Your task to perform on an android device: install app "NewsBreak: Local News & Alerts" Image 0: 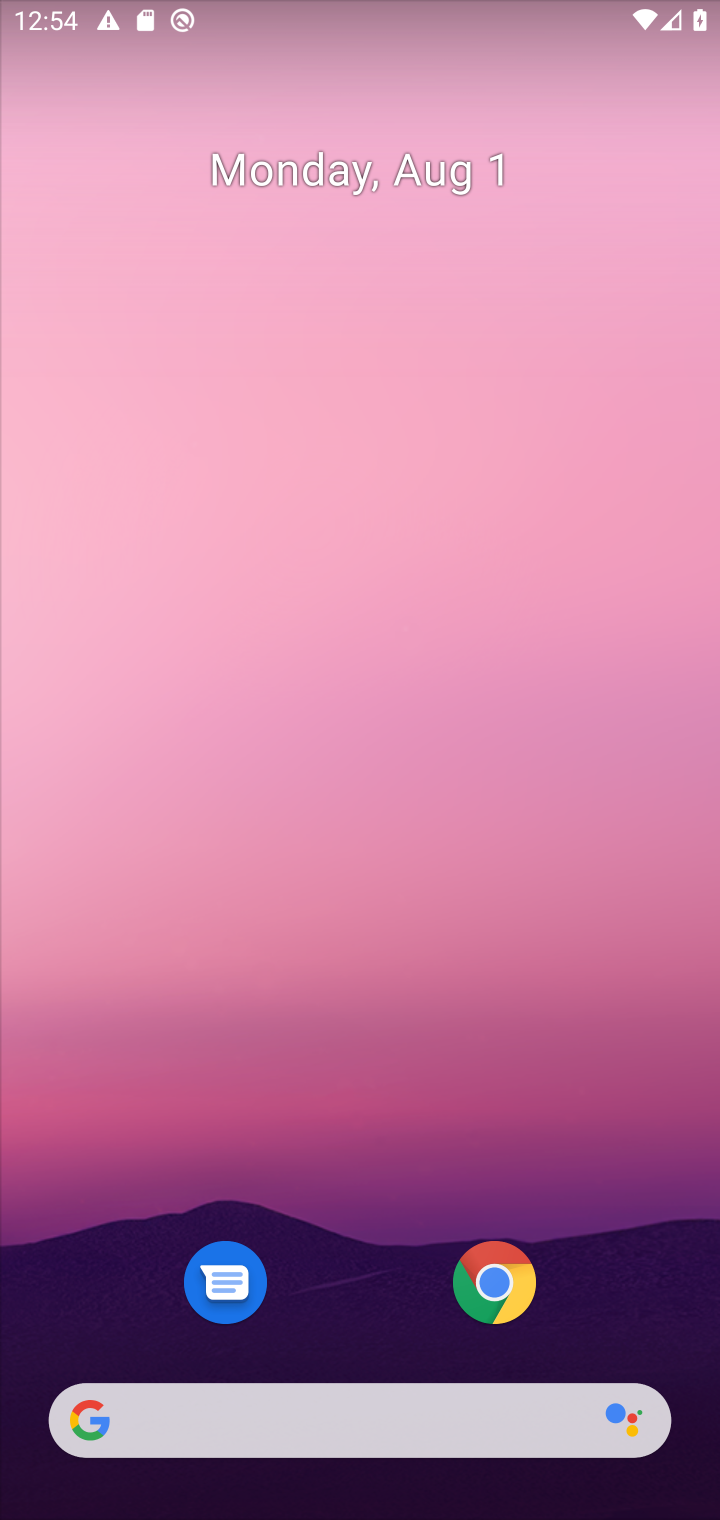
Step 0: drag from (326, 1341) to (146, 271)
Your task to perform on an android device: install app "NewsBreak: Local News & Alerts" Image 1: 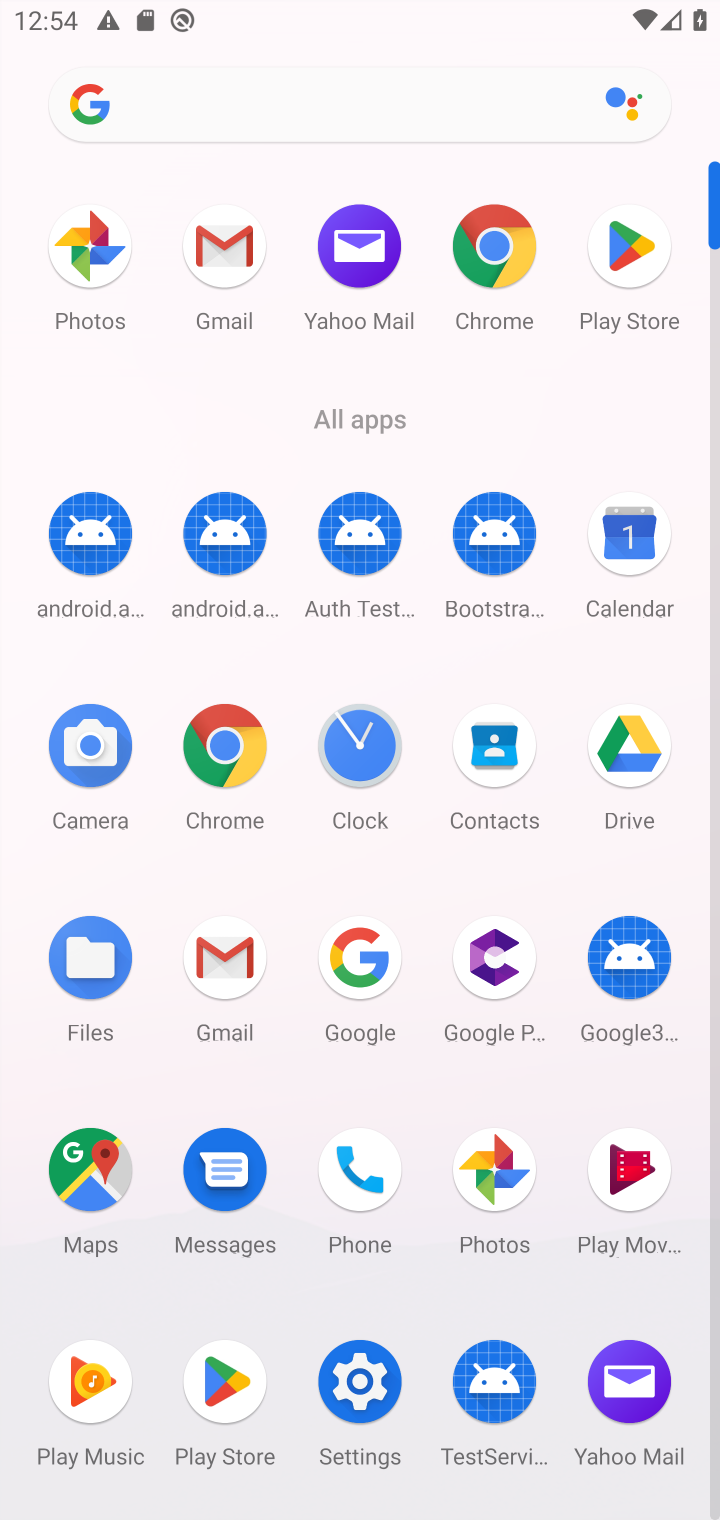
Step 1: click (242, 1375)
Your task to perform on an android device: install app "NewsBreak: Local News & Alerts" Image 2: 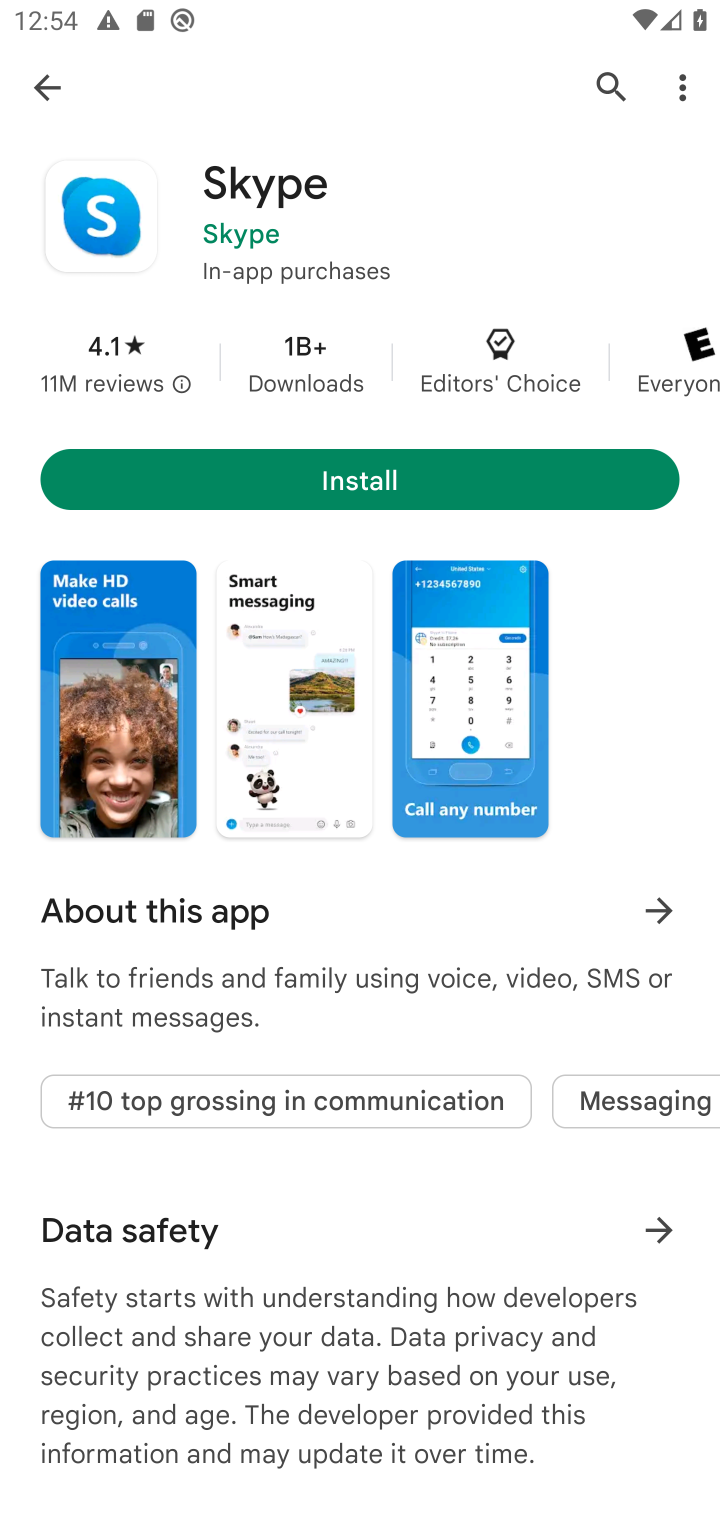
Step 2: click (37, 66)
Your task to perform on an android device: install app "NewsBreak: Local News & Alerts" Image 3: 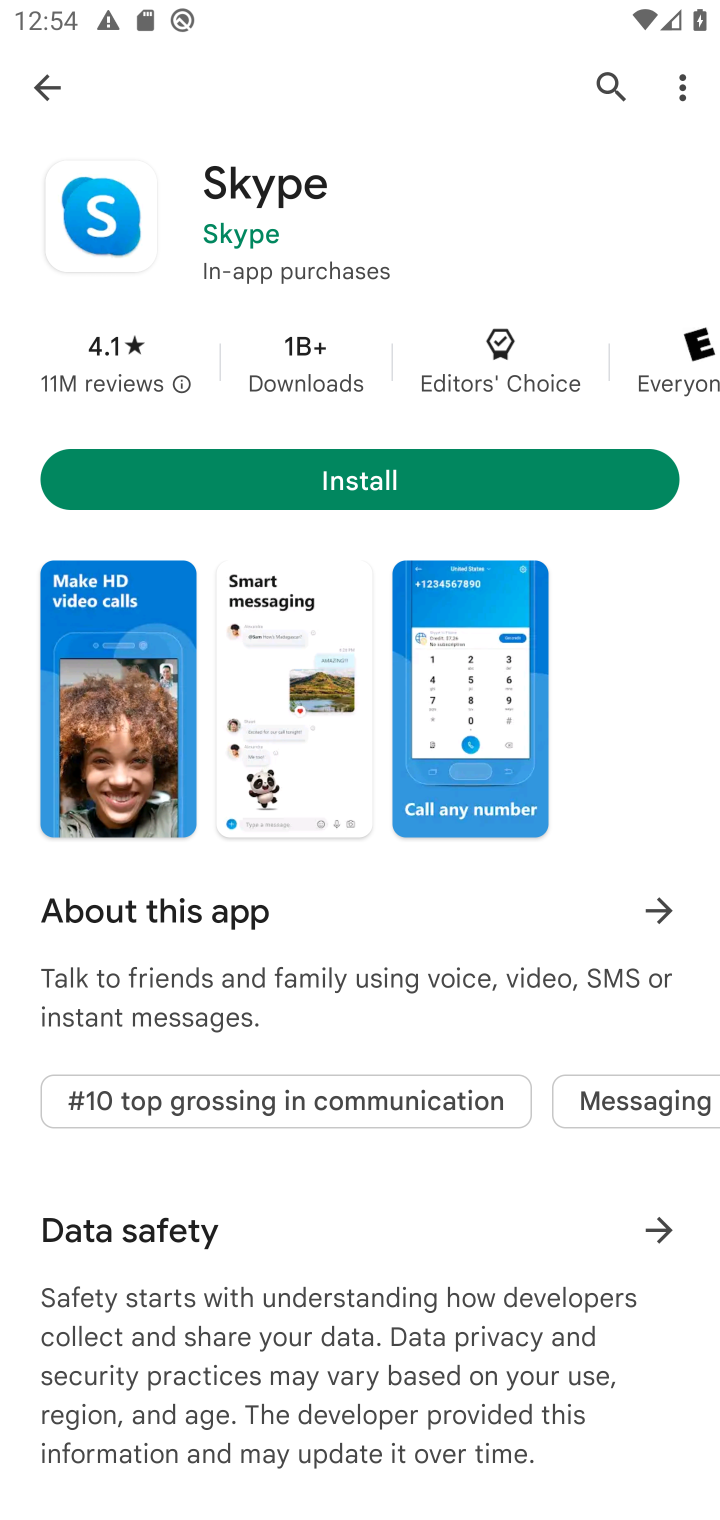
Step 3: click (40, 105)
Your task to perform on an android device: install app "NewsBreak: Local News & Alerts" Image 4: 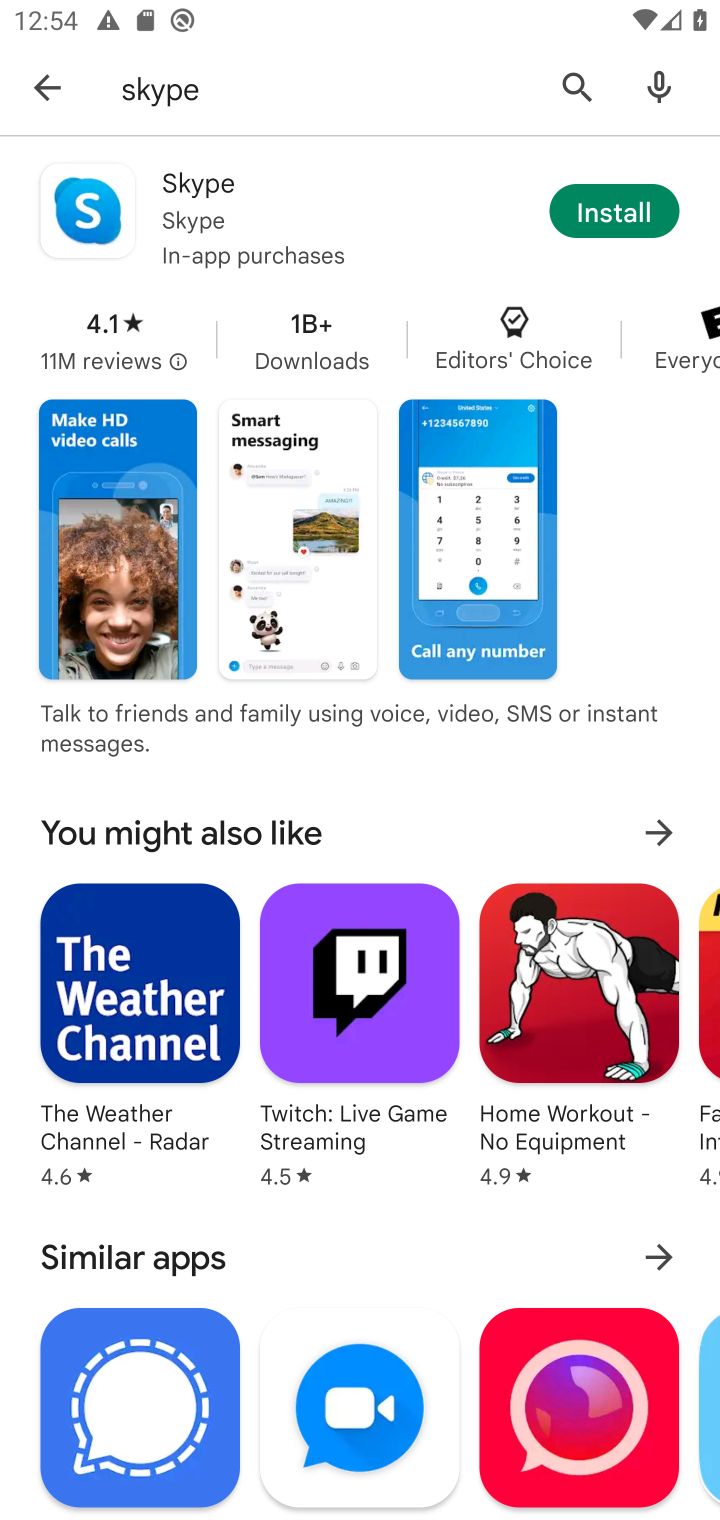
Step 4: click (579, 76)
Your task to perform on an android device: install app "NewsBreak: Local News & Alerts" Image 5: 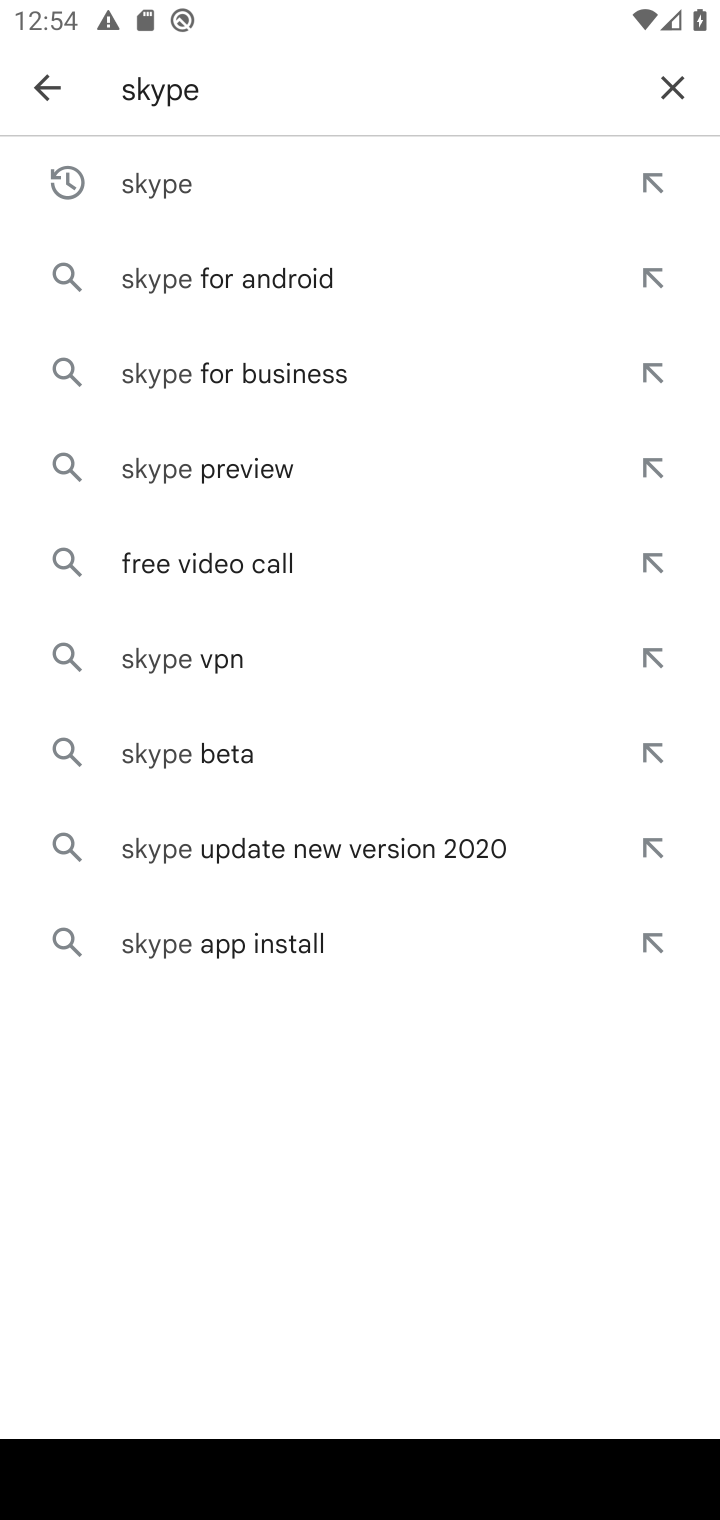
Step 5: click (669, 78)
Your task to perform on an android device: install app "NewsBreak: Local News & Alerts" Image 6: 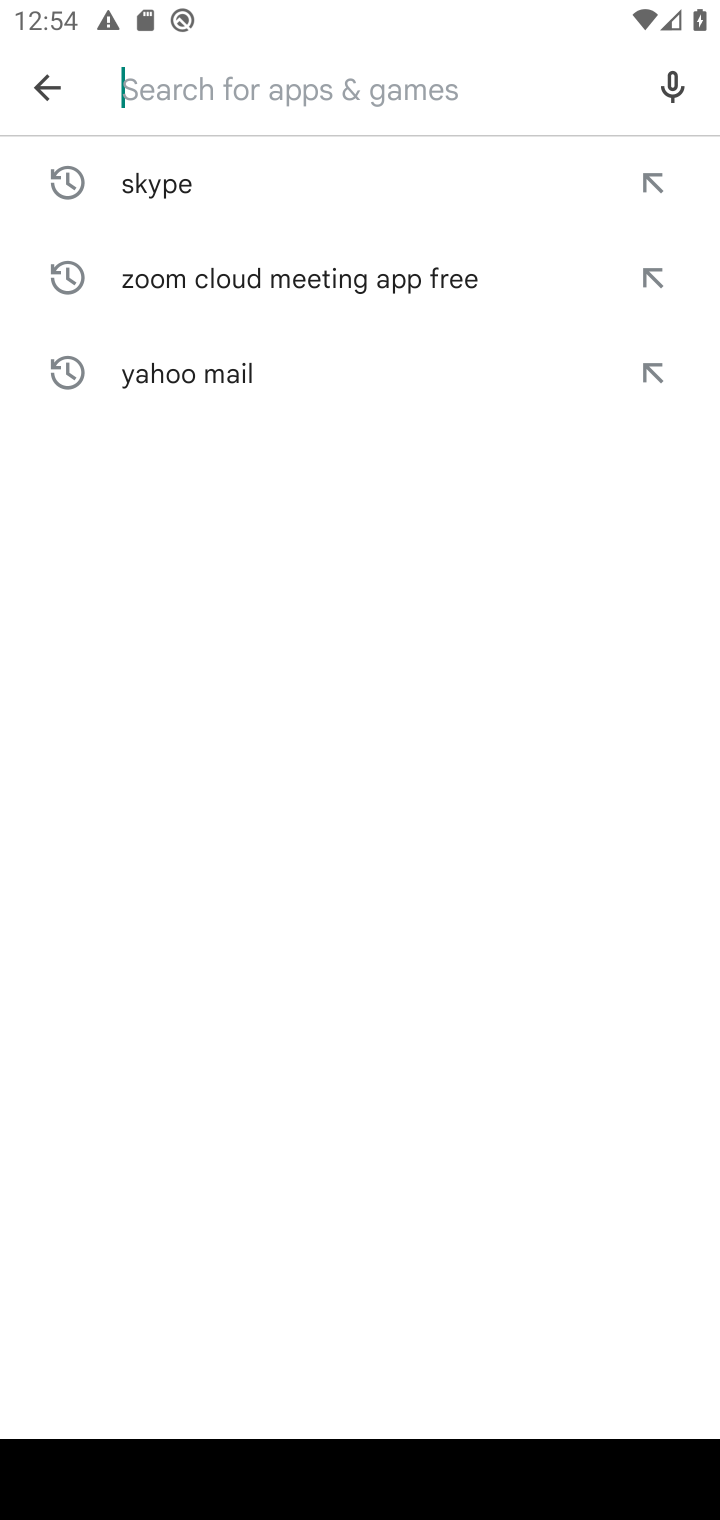
Step 6: type "NewsBreak: Local News & Alert"
Your task to perform on an android device: install app "NewsBreak: Local News & Alerts" Image 7: 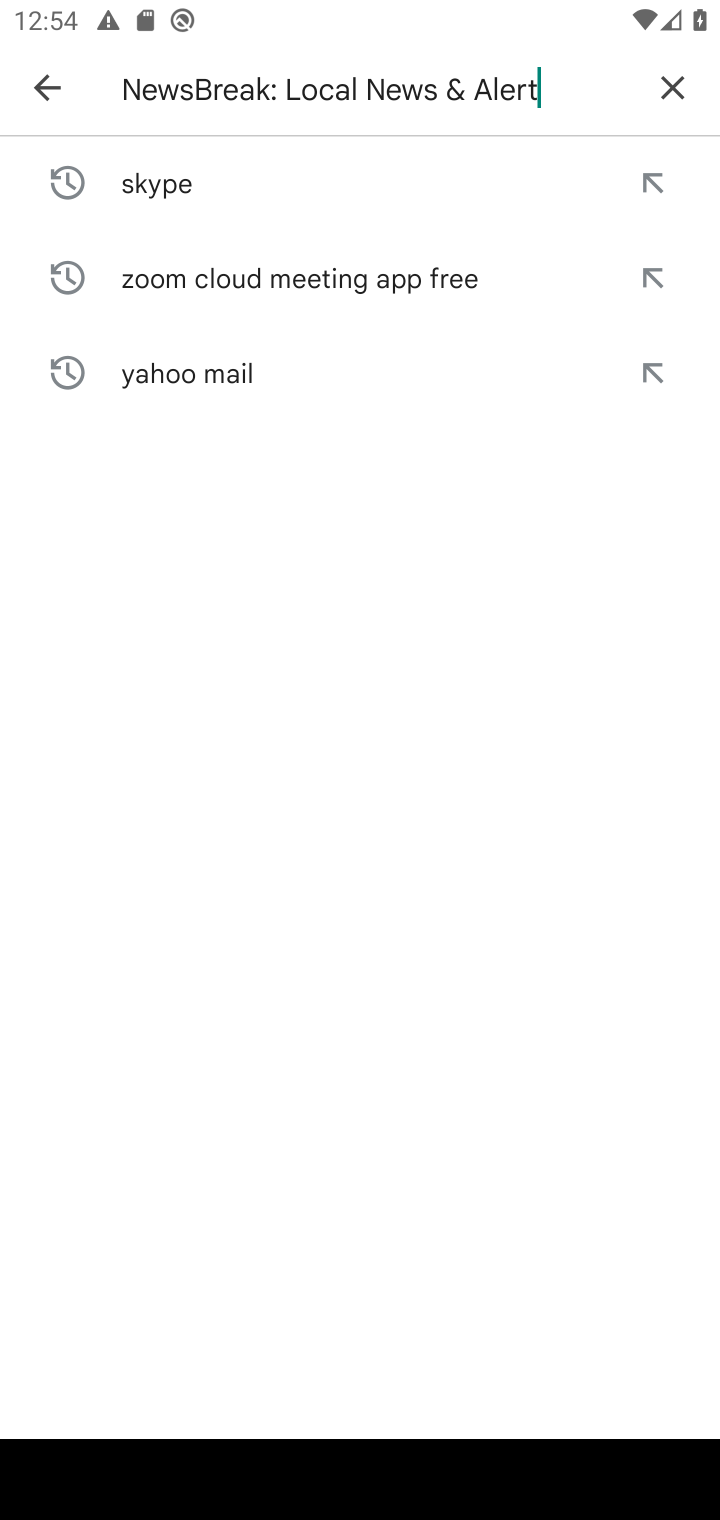
Step 7: type ""
Your task to perform on an android device: install app "NewsBreak: Local News & Alerts" Image 8: 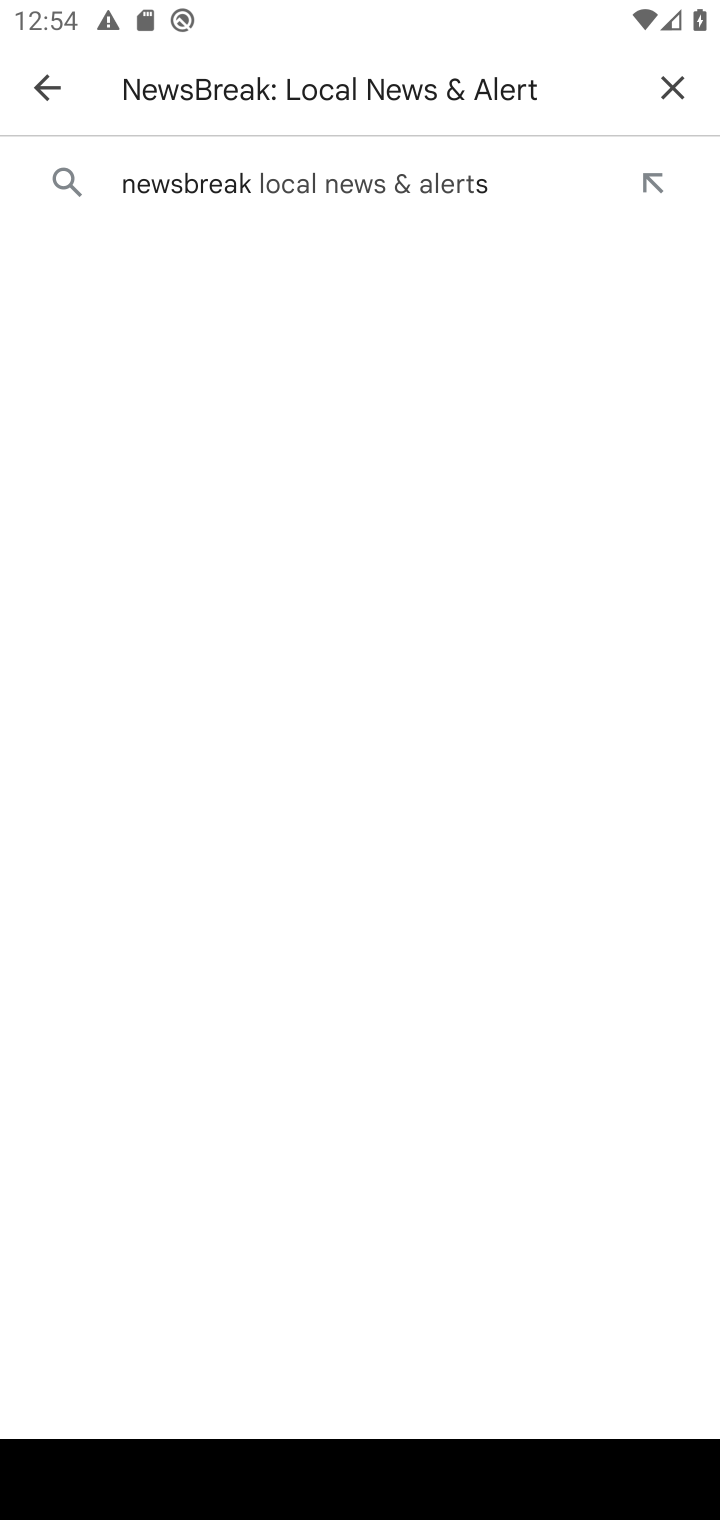
Step 8: click (178, 178)
Your task to perform on an android device: install app "NewsBreak: Local News & Alerts" Image 9: 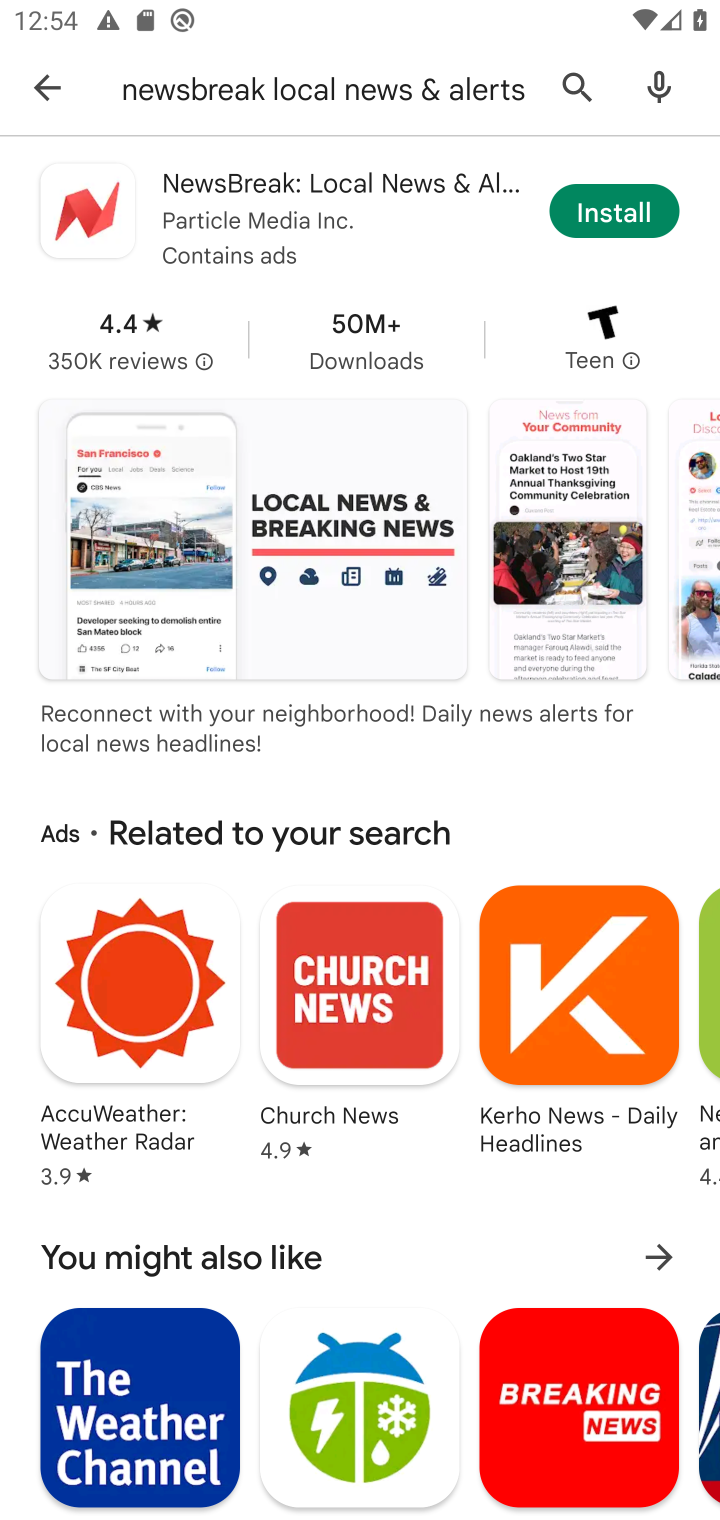
Step 9: click (178, 178)
Your task to perform on an android device: install app "NewsBreak: Local News & Alerts" Image 10: 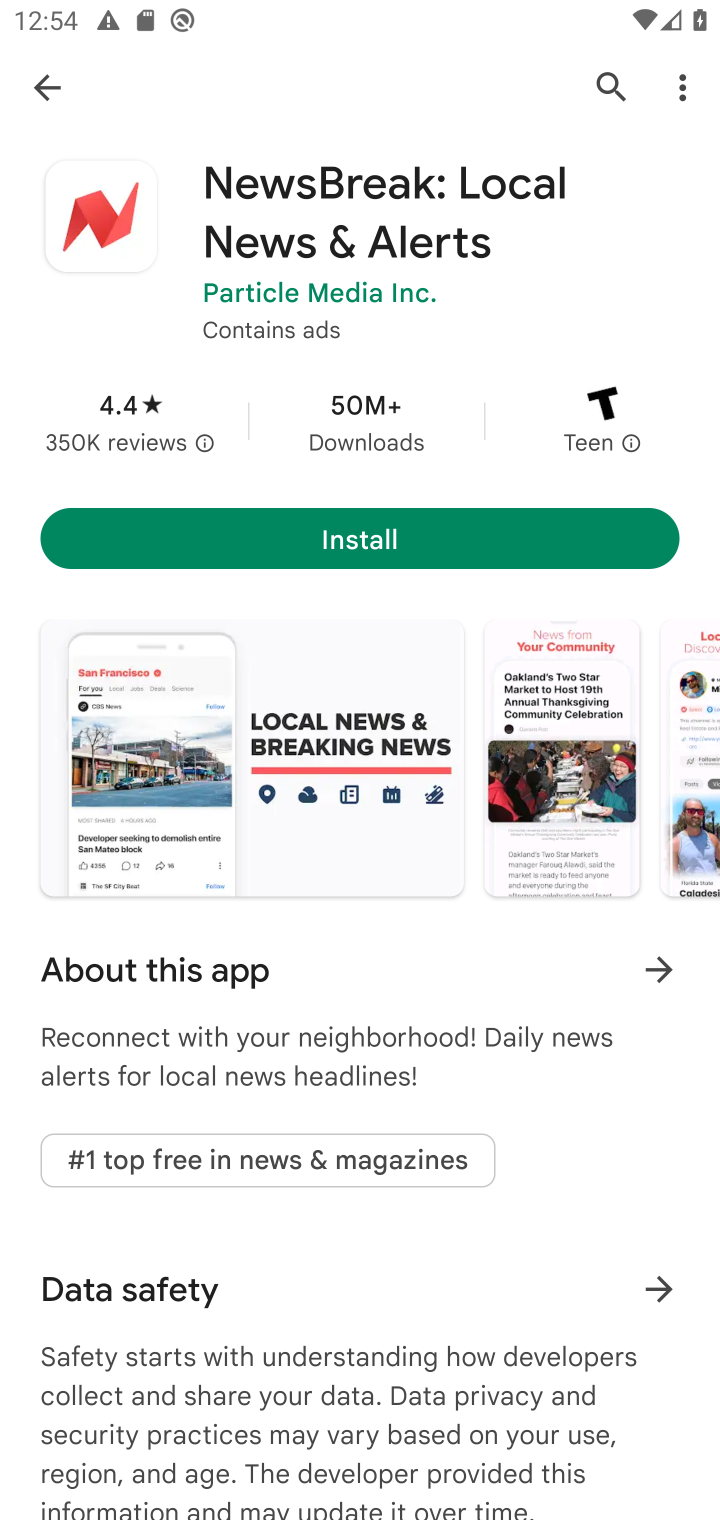
Step 10: click (521, 527)
Your task to perform on an android device: install app "NewsBreak: Local News & Alerts" Image 11: 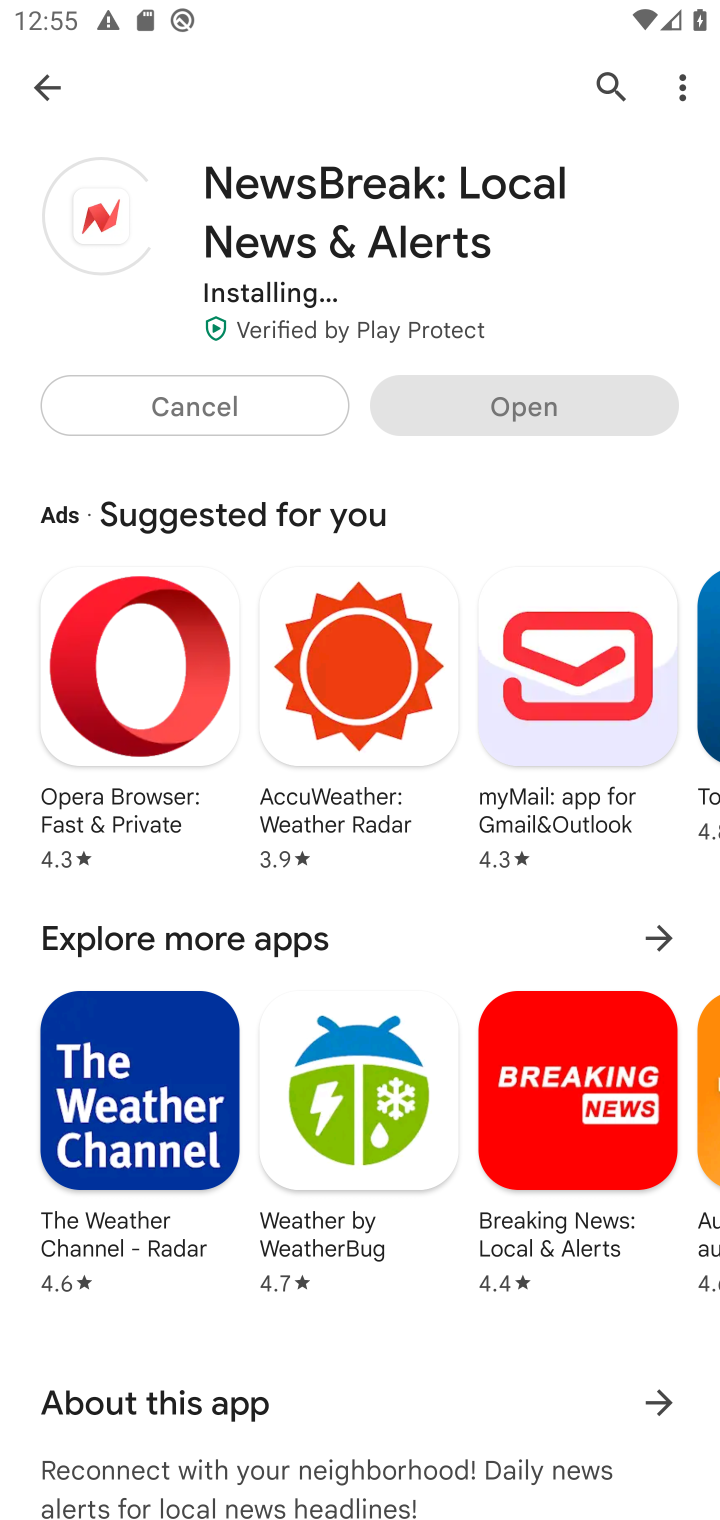
Step 11: task complete